Your task to perform on an android device: Open my contact list Image 0: 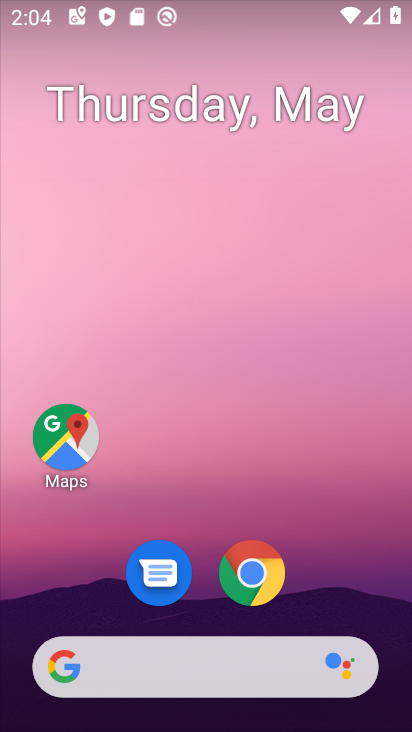
Step 0: drag from (339, 615) to (317, 241)
Your task to perform on an android device: Open my contact list Image 1: 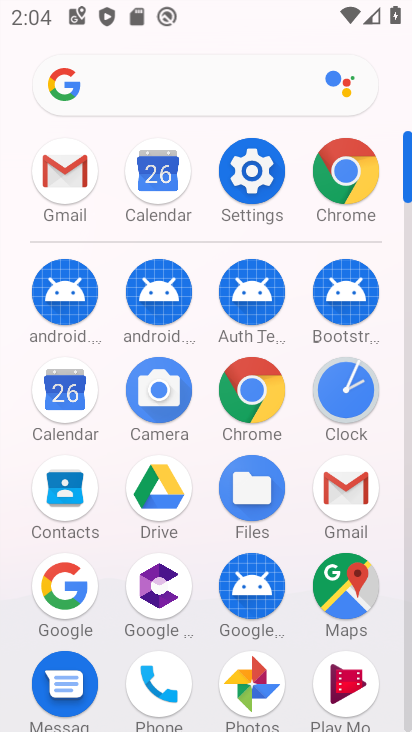
Step 1: click (77, 501)
Your task to perform on an android device: Open my contact list Image 2: 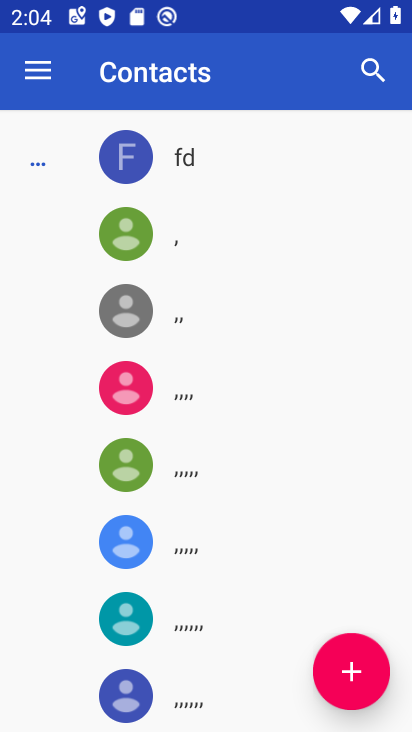
Step 2: task complete